Your task to perform on an android device: manage bookmarks in the chrome app Image 0: 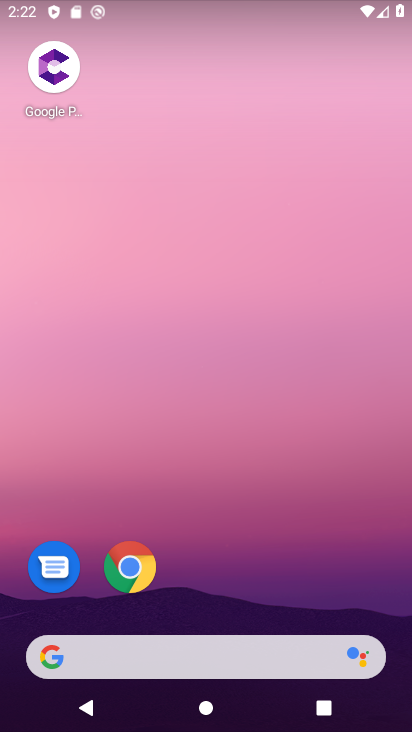
Step 0: drag from (297, 590) to (298, 40)
Your task to perform on an android device: manage bookmarks in the chrome app Image 1: 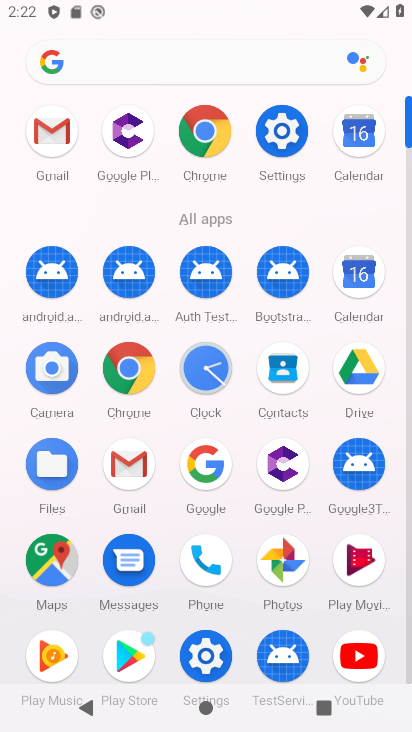
Step 1: click (208, 131)
Your task to perform on an android device: manage bookmarks in the chrome app Image 2: 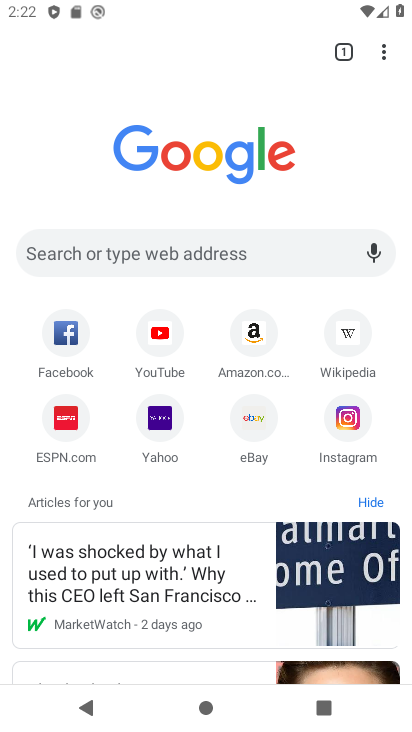
Step 2: task complete